Your task to perform on an android device: toggle pop-ups in chrome Image 0: 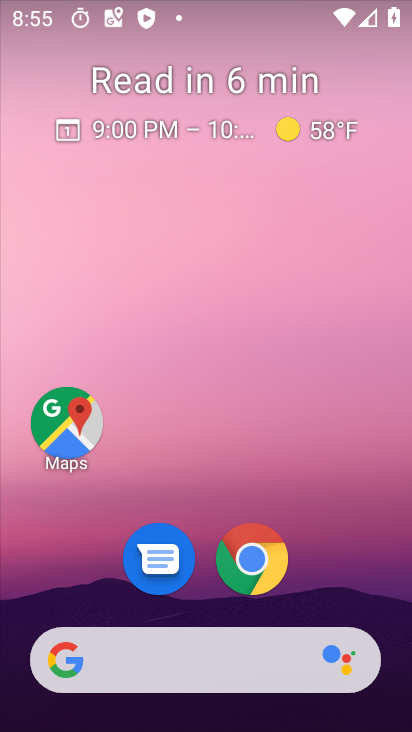
Step 0: click (251, 561)
Your task to perform on an android device: toggle pop-ups in chrome Image 1: 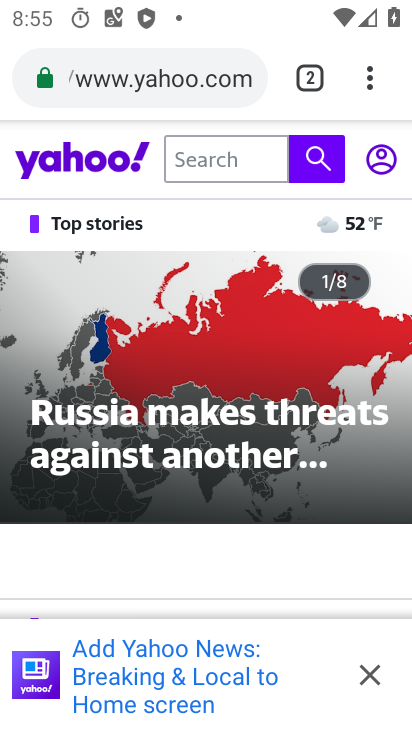
Step 1: click (368, 79)
Your task to perform on an android device: toggle pop-ups in chrome Image 2: 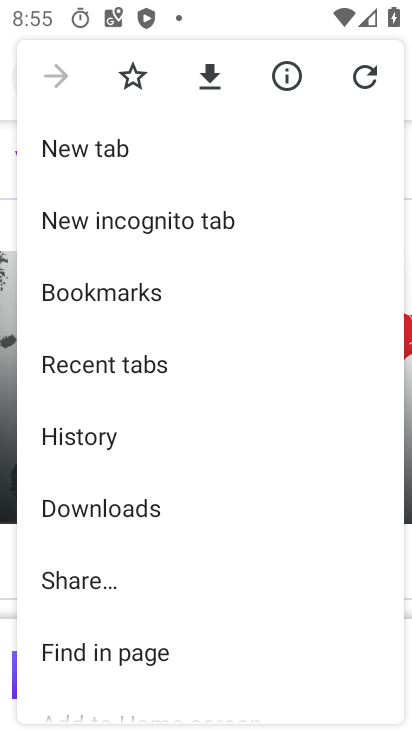
Step 2: drag from (145, 594) to (170, 446)
Your task to perform on an android device: toggle pop-ups in chrome Image 3: 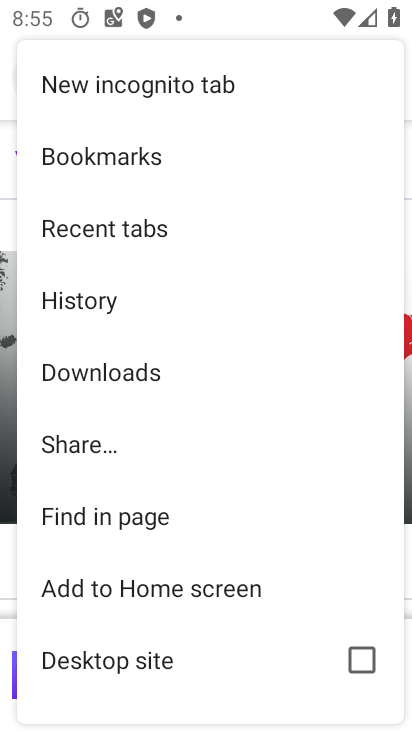
Step 3: drag from (134, 655) to (191, 397)
Your task to perform on an android device: toggle pop-ups in chrome Image 4: 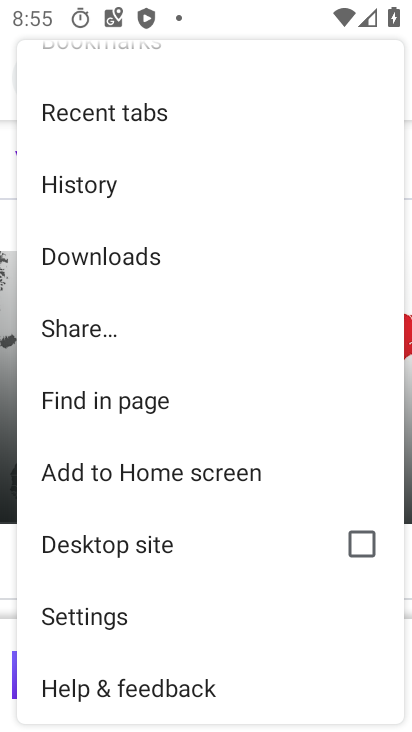
Step 4: click (100, 619)
Your task to perform on an android device: toggle pop-ups in chrome Image 5: 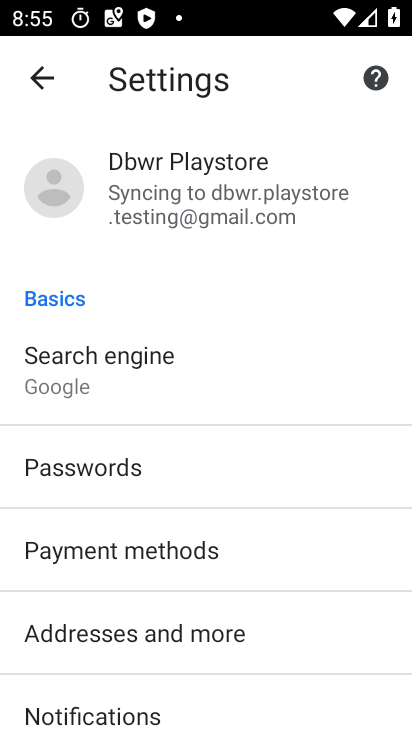
Step 5: drag from (202, 693) to (242, 443)
Your task to perform on an android device: toggle pop-ups in chrome Image 6: 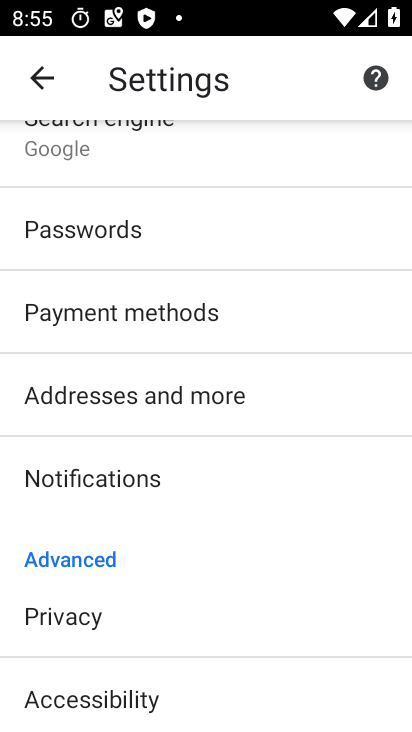
Step 6: drag from (162, 640) to (239, 499)
Your task to perform on an android device: toggle pop-ups in chrome Image 7: 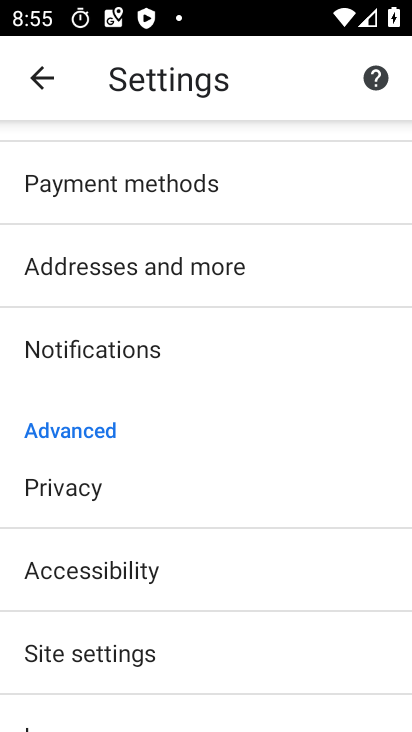
Step 7: click (129, 653)
Your task to perform on an android device: toggle pop-ups in chrome Image 8: 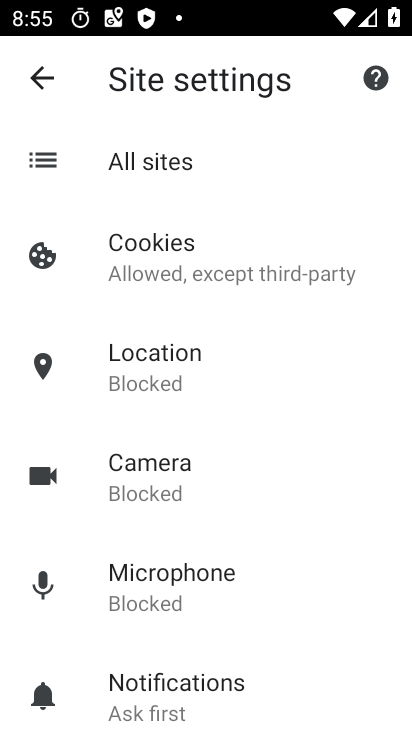
Step 8: drag from (174, 640) to (266, 481)
Your task to perform on an android device: toggle pop-ups in chrome Image 9: 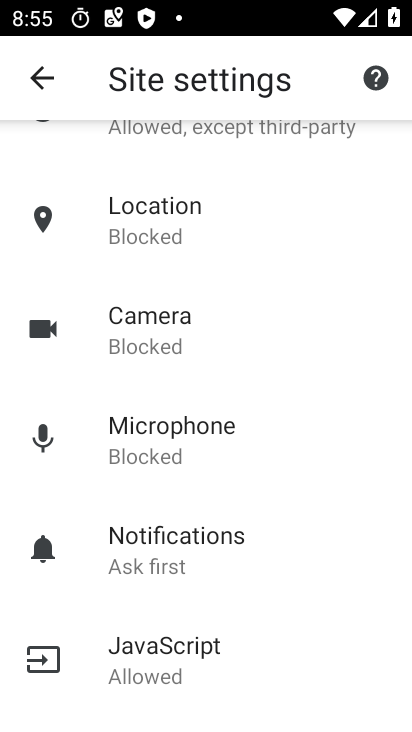
Step 9: drag from (158, 606) to (267, 447)
Your task to perform on an android device: toggle pop-ups in chrome Image 10: 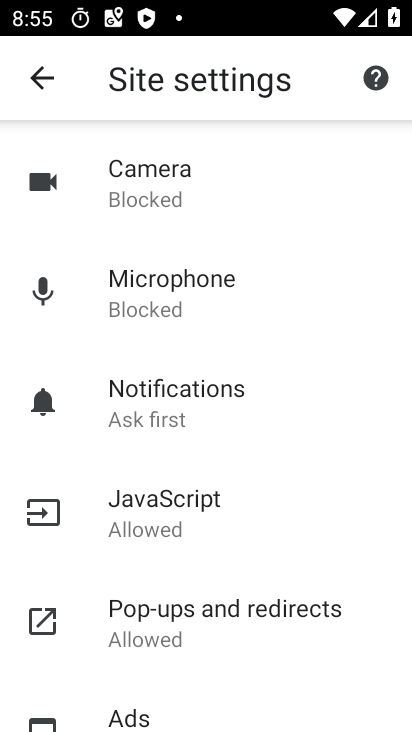
Step 10: drag from (165, 576) to (277, 443)
Your task to perform on an android device: toggle pop-ups in chrome Image 11: 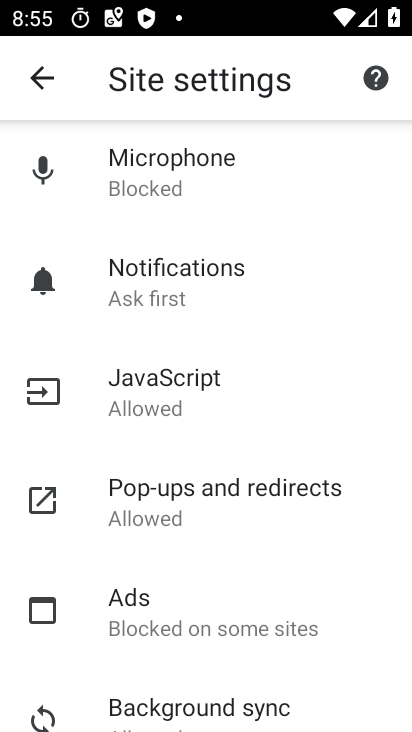
Step 11: click (180, 497)
Your task to perform on an android device: toggle pop-ups in chrome Image 12: 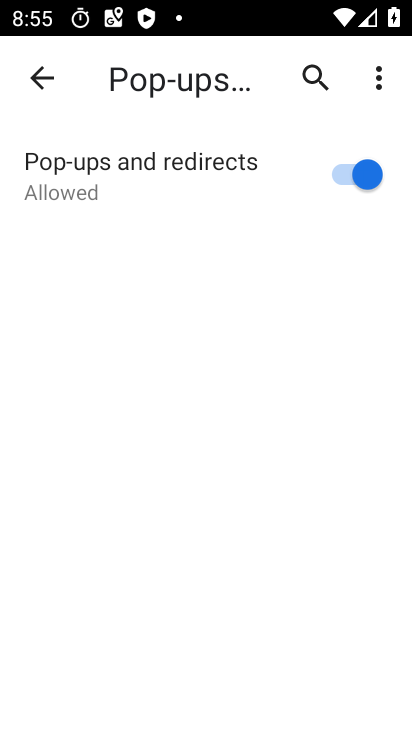
Step 12: click (365, 173)
Your task to perform on an android device: toggle pop-ups in chrome Image 13: 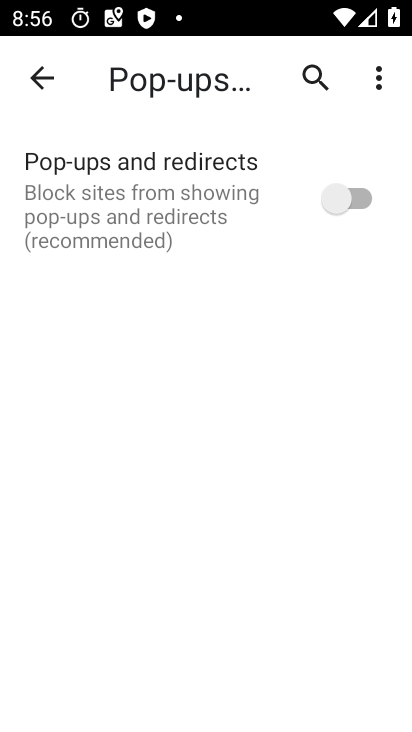
Step 13: task complete